Your task to perform on an android device: Show the shopping cart on target.com. Search for "bose quietcomfort 35" on target.com, select the first entry, add it to the cart, then select checkout. Image 0: 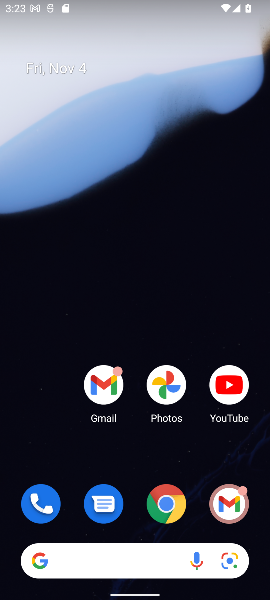
Step 0: click (170, 506)
Your task to perform on an android device: Show the shopping cart on target.com. Search for "bose quietcomfort 35" on target.com, select the first entry, add it to the cart, then select checkout. Image 1: 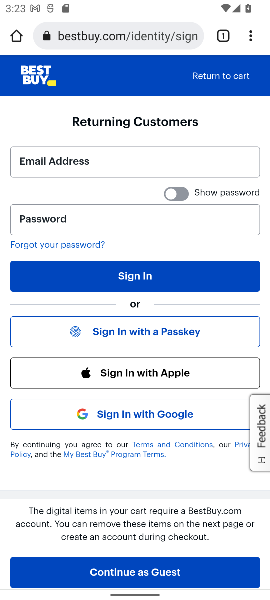
Step 1: click (101, 39)
Your task to perform on an android device: Show the shopping cart on target.com. Search for "bose quietcomfort 35" on target.com, select the first entry, add it to the cart, then select checkout. Image 2: 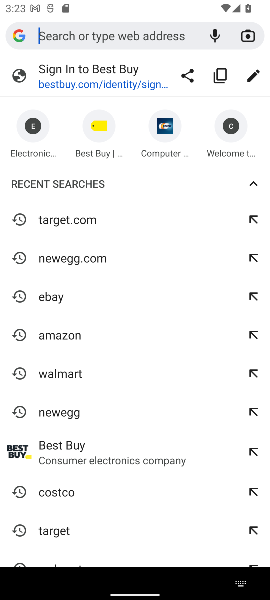
Step 2: click (75, 216)
Your task to perform on an android device: Show the shopping cart on target.com. Search for "bose quietcomfort 35" on target.com, select the first entry, add it to the cart, then select checkout. Image 3: 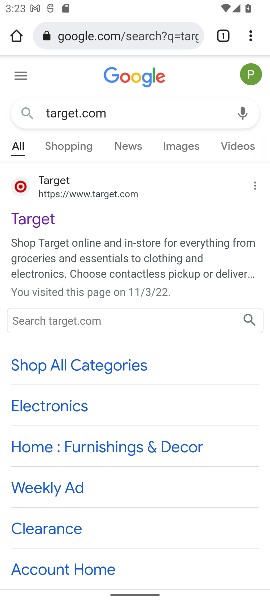
Step 3: click (37, 225)
Your task to perform on an android device: Show the shopping cart on target.com. Search for "bose quietcomfort 35" on target.com, select the first entry, add it to the cart, then select checkout. Image 4: 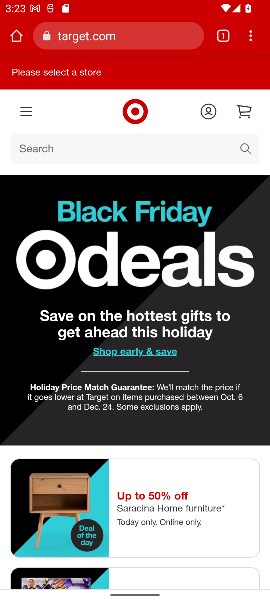
Step 4: click (244, 111)
Your task to perform on an android device: Show the shopping cart on target.com. Search for "bose quietcomfort 35" on target.com, select the first entry, add it to the cart, then select checkout. Image 5: 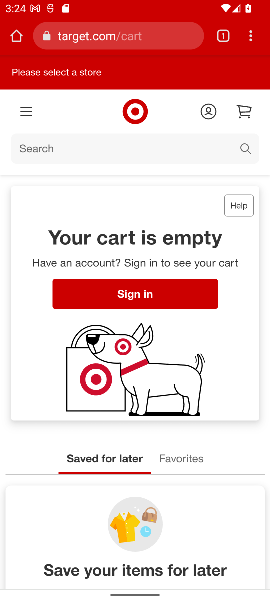
Step 5: click (249, 149)
Your task to perform on an android device: Show the shopping cart on target.com. Search for "bose quietcomfort 35" on target.com, select the first entry, add it to the cart, then select checkout. Image 6: 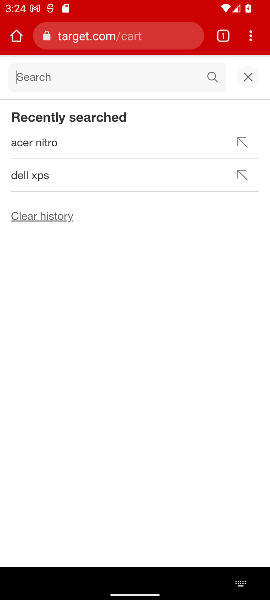
Step 6: type "bose quietcomfort 35"
Your task to perform on an android device: Show the shopping cart on target.com. Search for "bose quietcomfort 35" on target.com, select the first entry, add it to the cart, then select checkout. Image 7: 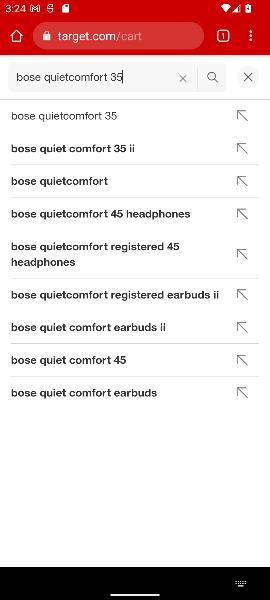
Step 7: click (75, 116)
Your task to perform on an android device: Show the shopping cart on target.com. Search for "bose quietcomfort 35" on target.com, select the first entry, add it to the cart, then select checkout. Image 8: 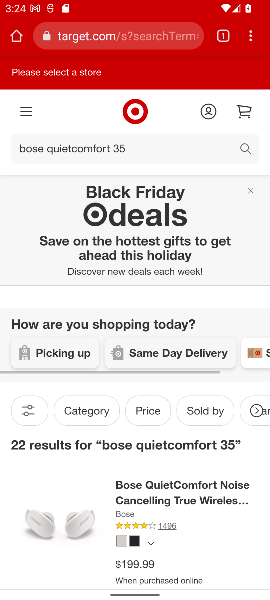
Step 8: drag from (98, 384) to (111, 217)
Your task to perform on an android device: Show the shopping cart on target.com. Search for "bose quietcomfort 35" on target.com, select the first entry, add it to the cart, then select checkout. Image 9: 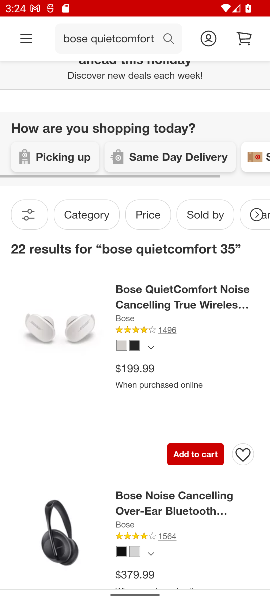
Step 9: click (74, 327)
Your task to perform on an android device: Show the shopping cart on target.com. Search for "bose quietcomfort 35" on target.com, select the first entry, add it to the cart, then select checkout. Image 10: 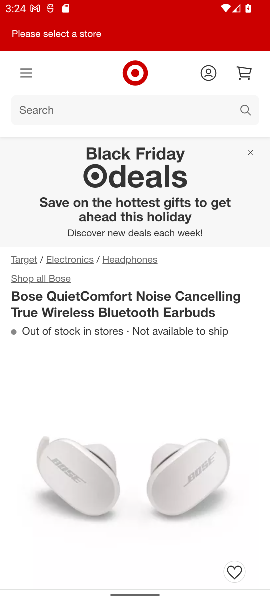
Step 10: task complete